Your task to perform on an android device: search for starred emails in the gmail app Image 0: 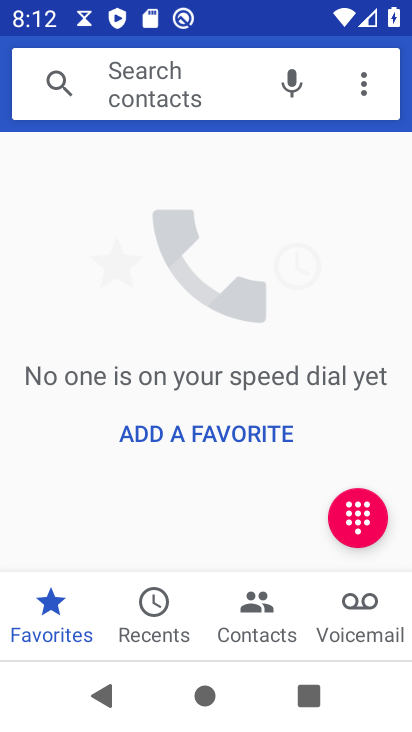
Step 0: press home button
Your task to perform on an android device: search for starred emails in the gmail app Image 1: 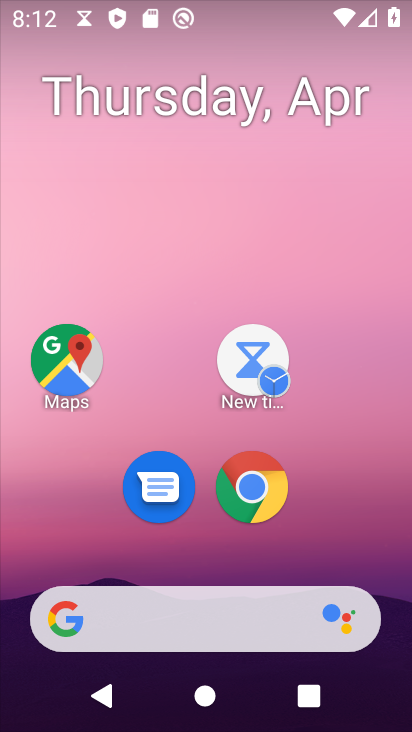
Step 1: drag from (342, 550) to (286, 143)
Your task to perform on an android device: search for starred emails in the gmail app Image 2: 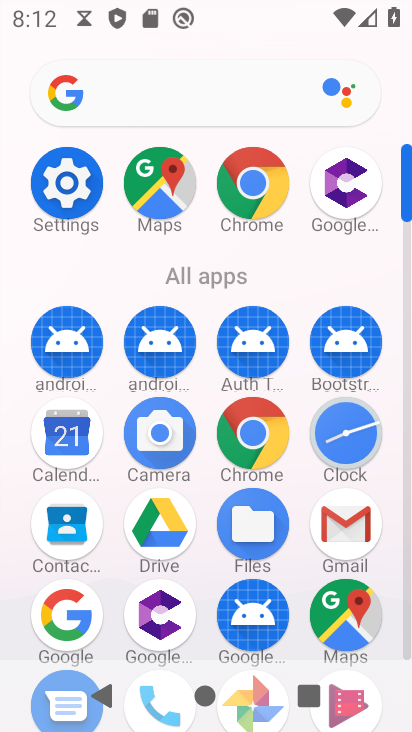
Step 2: click (345, 512)
Your task to perform on an android device: search for starred emails in the gmail app Image 3: 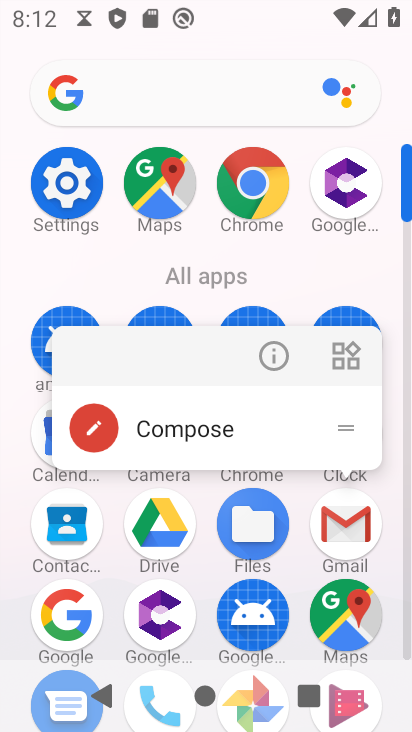
Step 3: click (349, 517)
Your task to perform on an android device: search for starred emails in the gmail app Image 4: 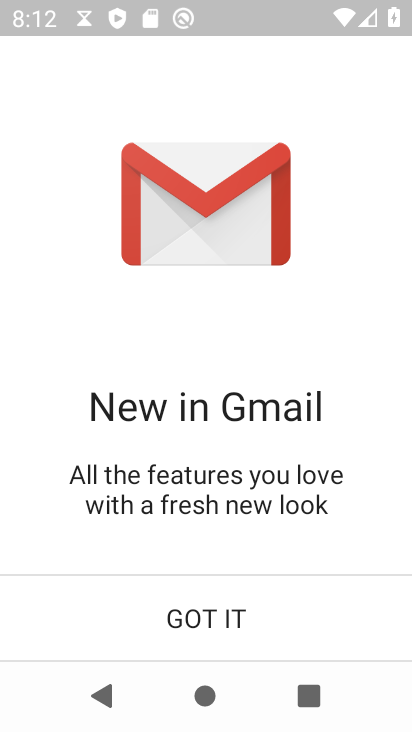
Step 4: click (211, 595)
Your task to perform on an android device: search for starred emails in the gmail app Image 5: 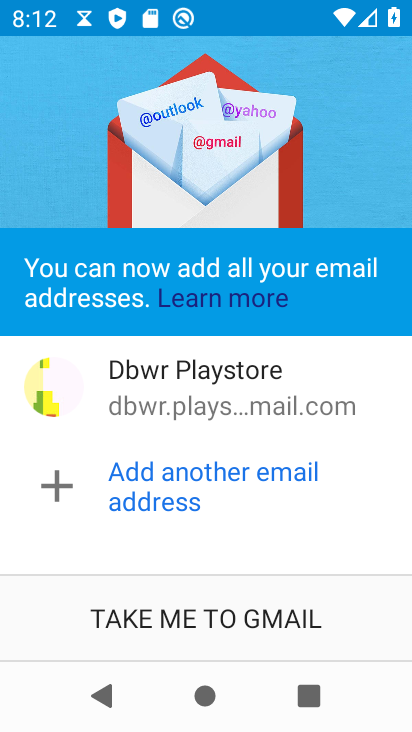
Step 5: click (216, 625)
Your task to perform on an android device: search for starred emails in the gmail app Image 6: 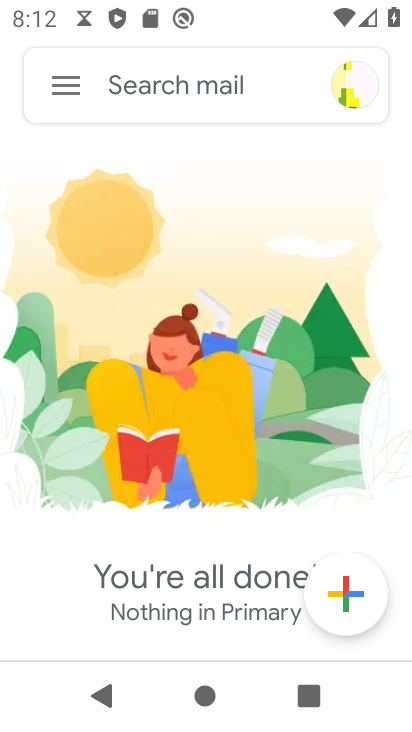
Step 6: click (65, 82)
Your task to perform on an android device: search for starred emails in the gmail app Image 7: 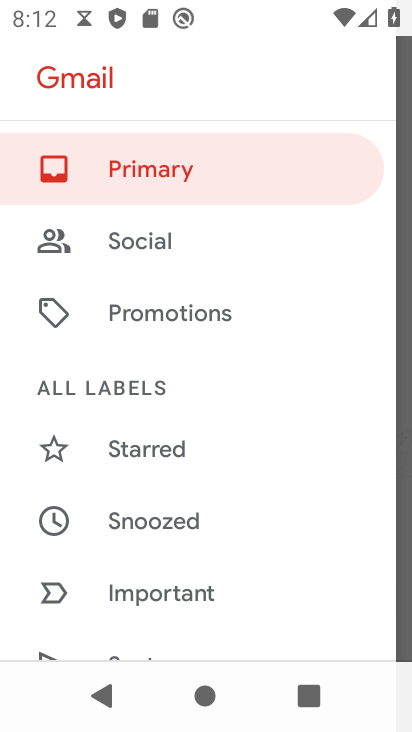
Step 7: click (137, 444)
Your task to perform on an android device: search for starred emails in the gmail app Image 8: 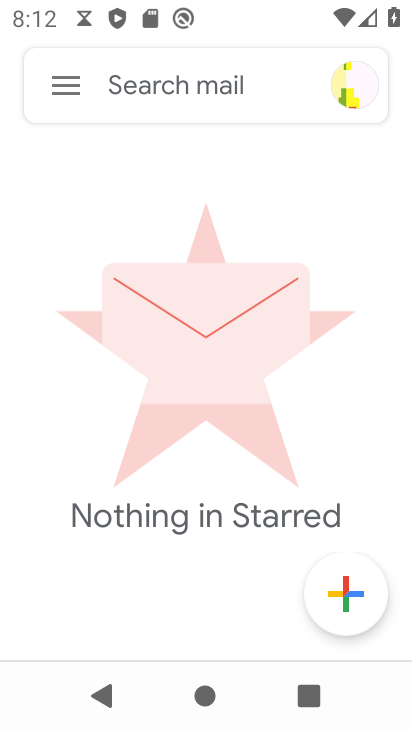
Step 8: task complete